Your task to perform on an android device: toggle airplane mode Image 0: 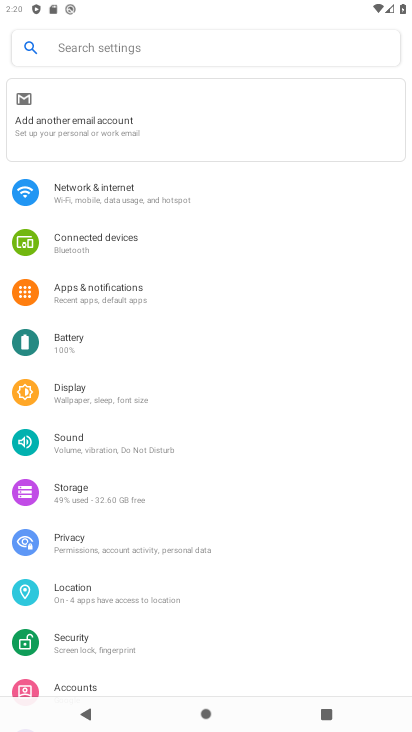
Step 0: click (94, 210)
Your task to perform on an android device: toggle airplane mode Image 1: 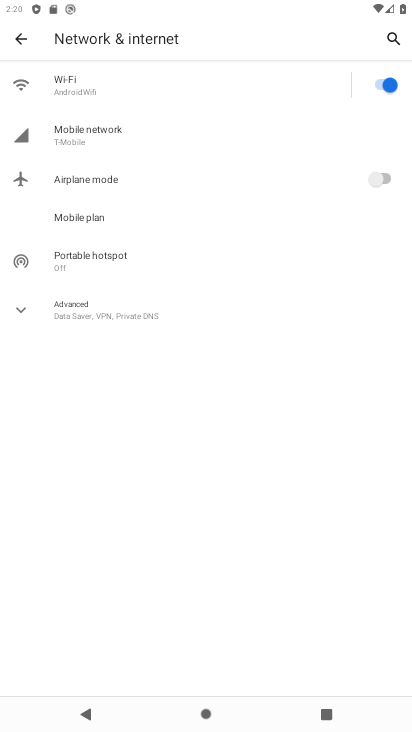
Step 1: click (383, 175)
Your task to perform on an android device: toggle airplane mode Image 2: 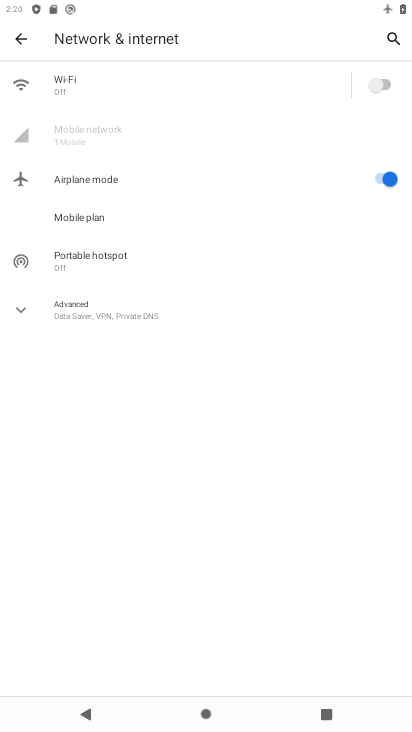
Step 2: task complete